Your task to perform on an android device: Open display settings Image 0: 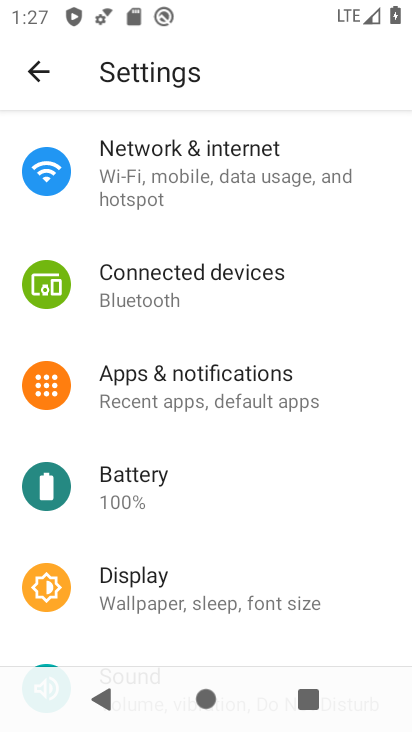
Step 0: click (334, 609)
Your task to perform on an android device: Open display settings Image 1: 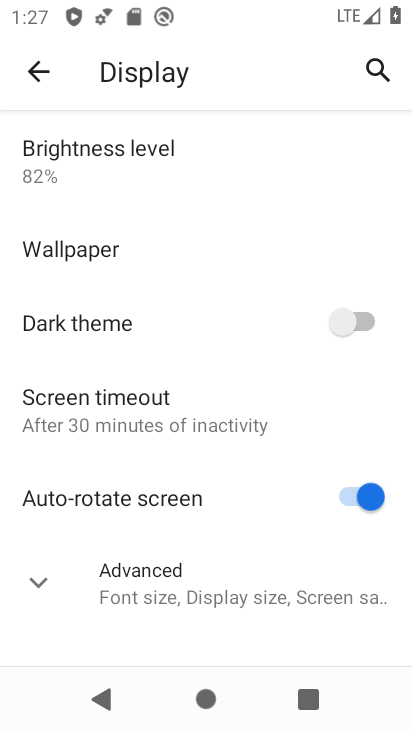
Step 1: task complete